Your task to perform on an android device: Open CNN.com Image 0: 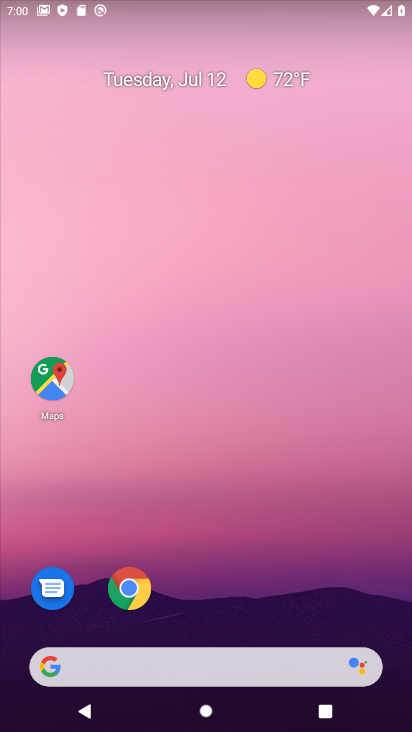
Step 0: drag from (311, 522) to (399, 94)
Your task to perform on an android device: Open CNN.com Image 1: 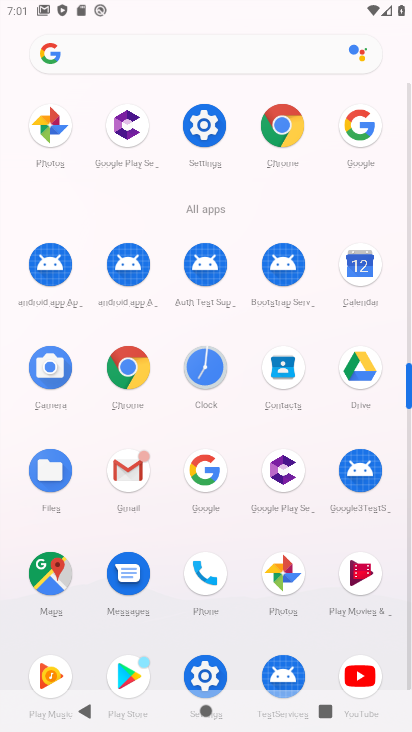
Step 1: click (281, 112)
Your task to perform on an android device: Open CNN.com Image 2: 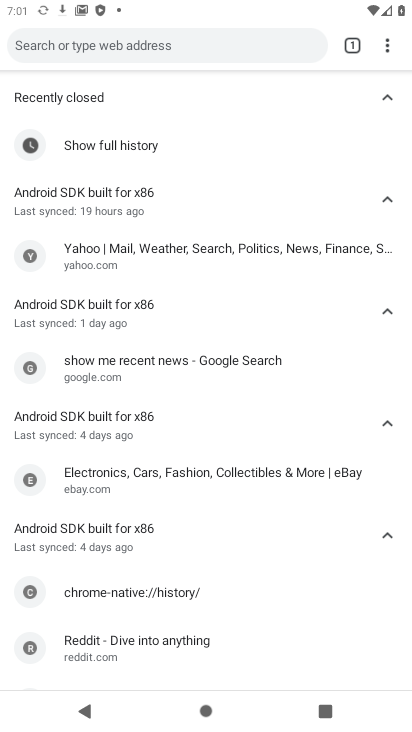
Step 2: click (197, 47)
Your task to perform on an android device: Open CNN.com Image 3: 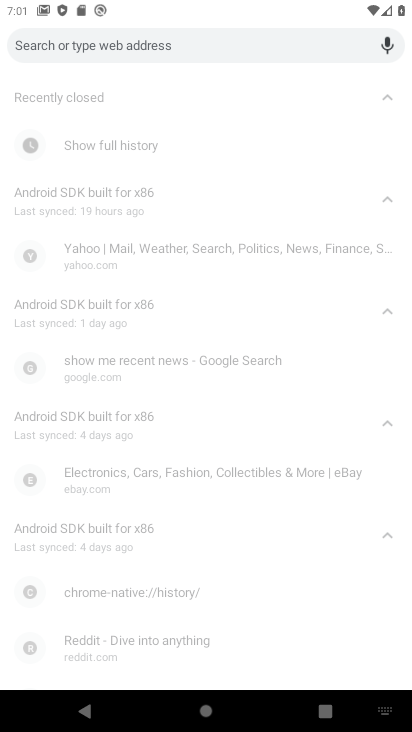
Step 3: type " CNN.com"
Your task to perform on an android device: Open CNN.com Image 4: 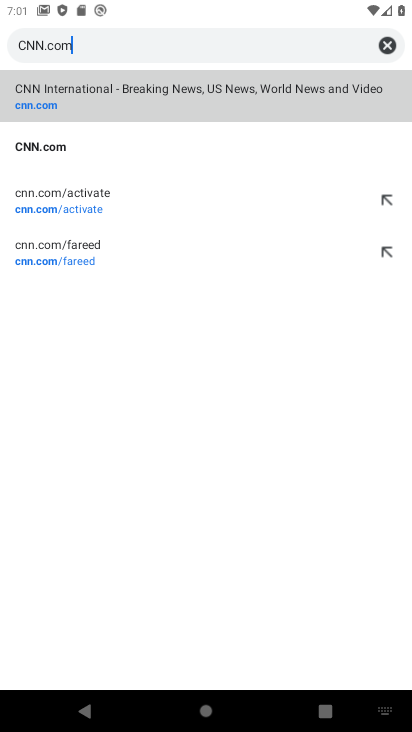
Step 4: press enter
Your task to perform on an android device: Open CNN.com Image 5: 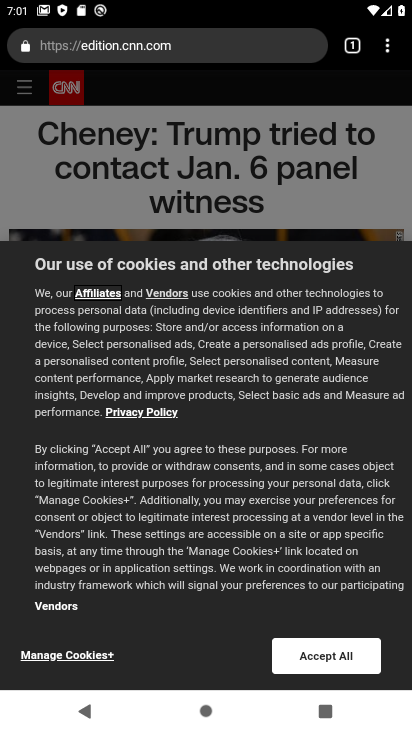
Step 5: task complete